Your task to perform on an android device: Search for seafood restaurants on Google Maps Image 0: 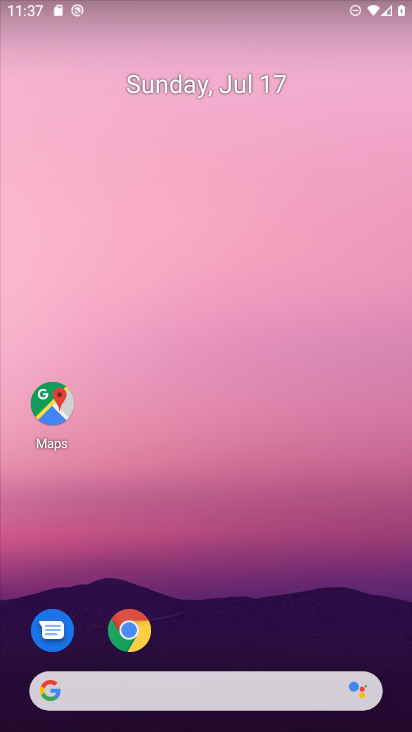
Step 0: click (48, 404)
Your task to perform on an android device: Search for seafood restaurants on Google Maps Image 1: 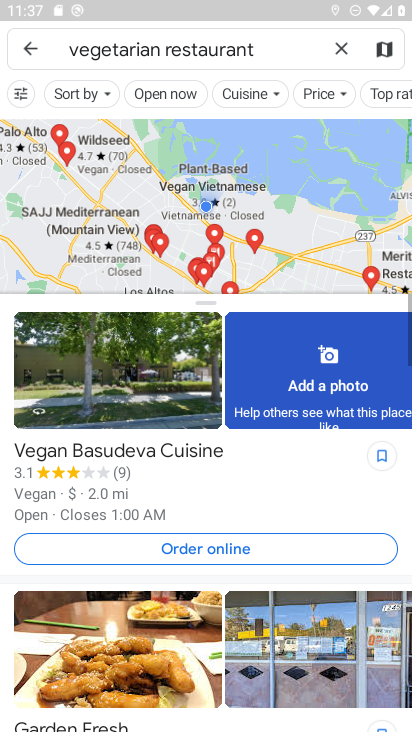
Step 1: click (32, 43)
Your task to perform on an android device: Search for seafood restaurants on Google Maps Image 2: 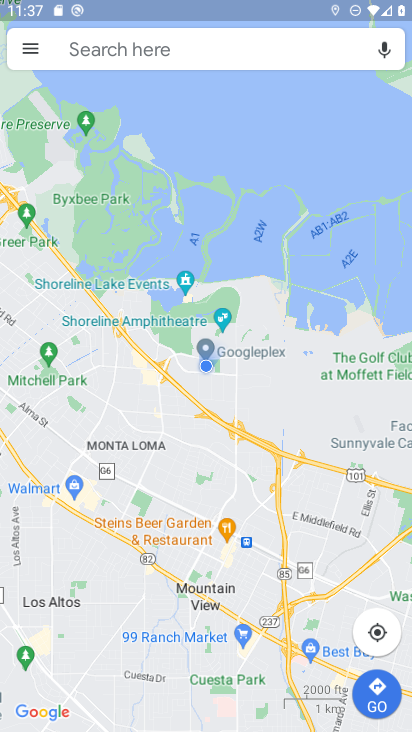
Step 2: click (109, 51)
Your task to perform on an android device: Search for seafood restaurants on Google Maps Image 3: 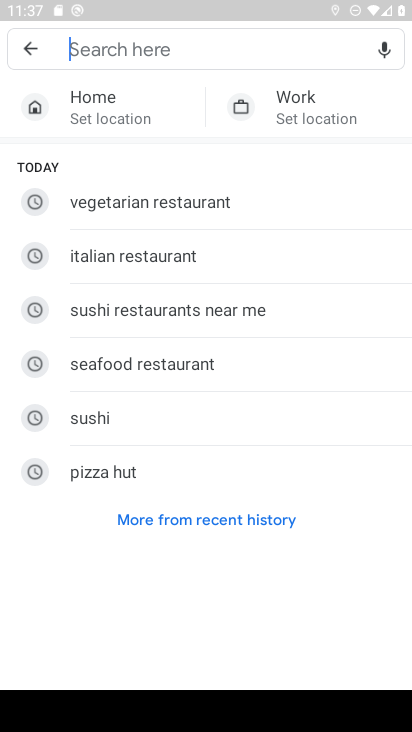
Step 3: click (98, 366)
Your task to perform on an android device: Search for seafood restaurants on Google Maps Image 4: 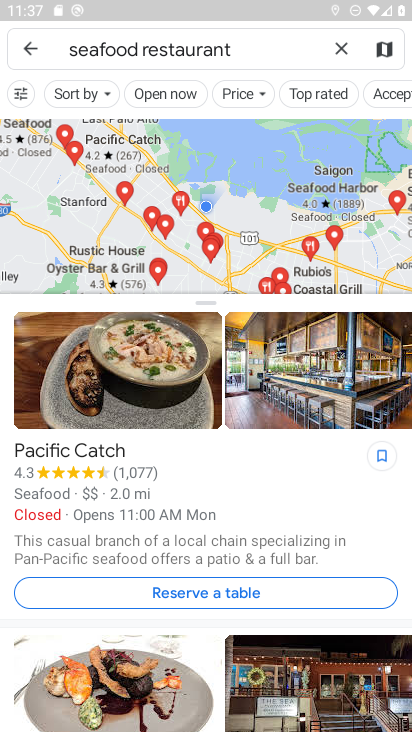
Step 4: task complete